Your task to perform on an android device: Go to Wikipedia Image 0: 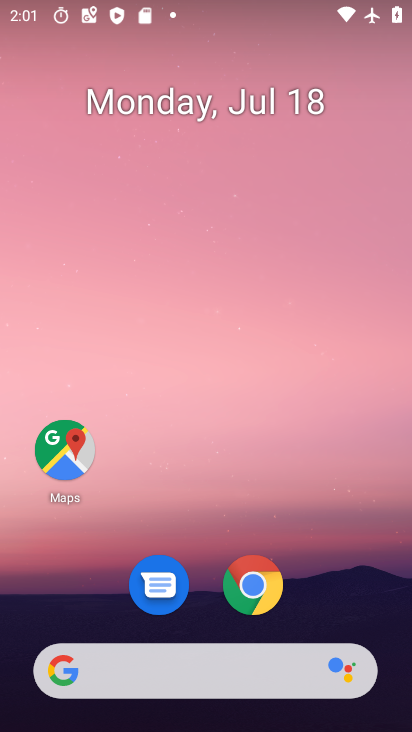
Step 0: click (248, 588)
Your task to perform on an android device: Go to Wikipedia Image 1: 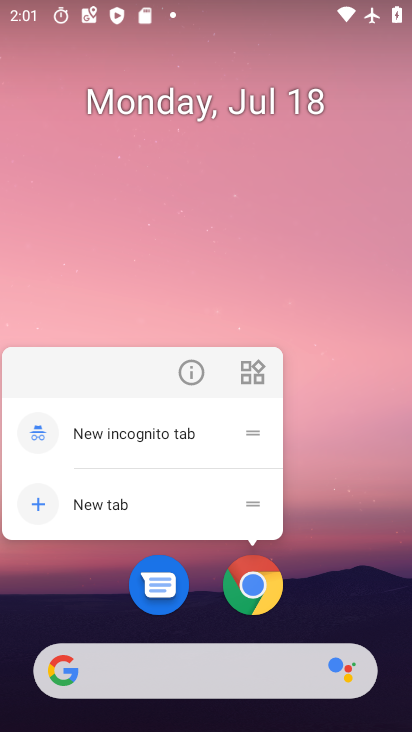
Step 1: click (263, 580)
Your task to perform on an android device: Go to Wikipedia Image 2: 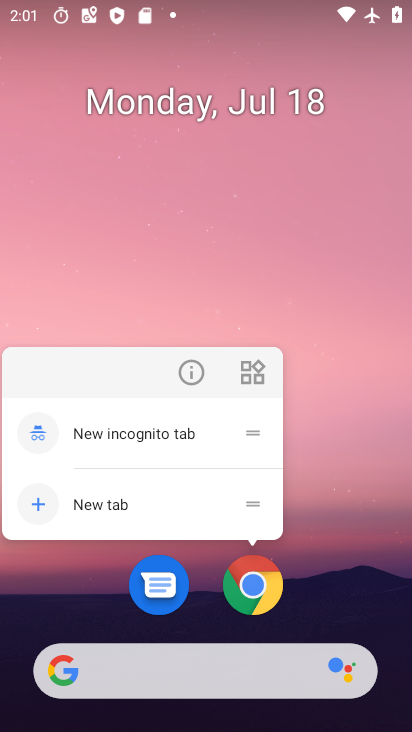
Step 2: click (255, 582)
Your task to perform on an android device: Go to Wikipedia Image 3: 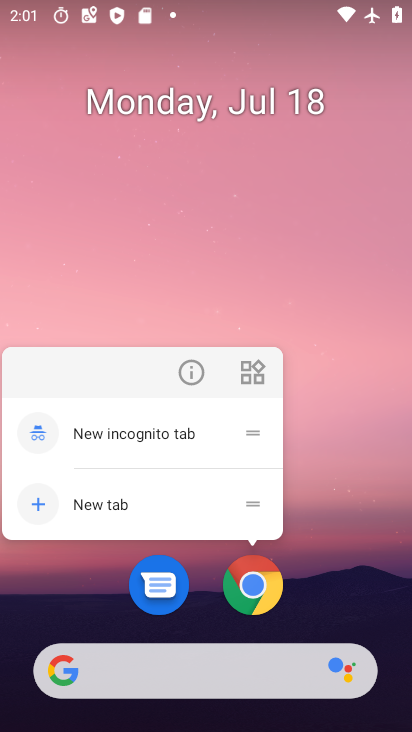
Step 3: click (255, 582)
Your task to perform on an android device: Go to Wikipedia Image 4: 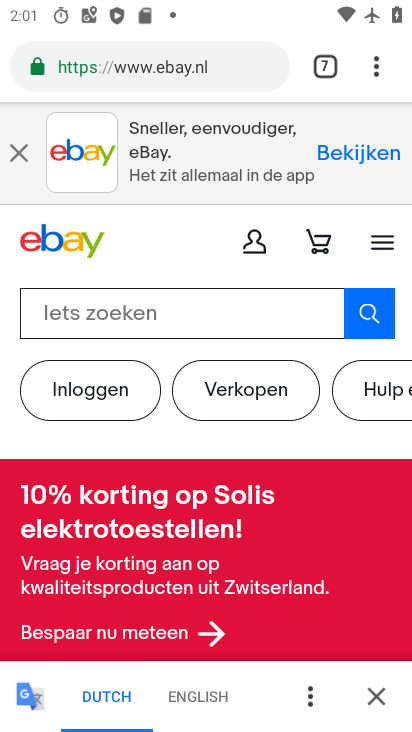
Step 4: drag from (372, 67) to (127, 132)
Your task to perform on an android device: Go to Wikipedia Image 5: 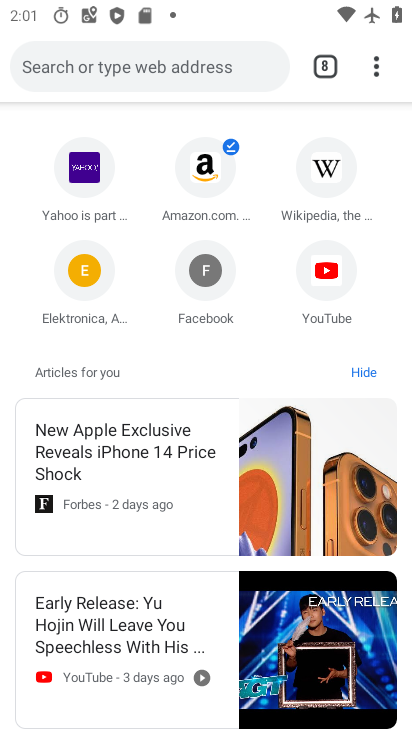
Step 5: click (325, 163)
Your task to perform on an android device: Go to Wikipedia Image 6: 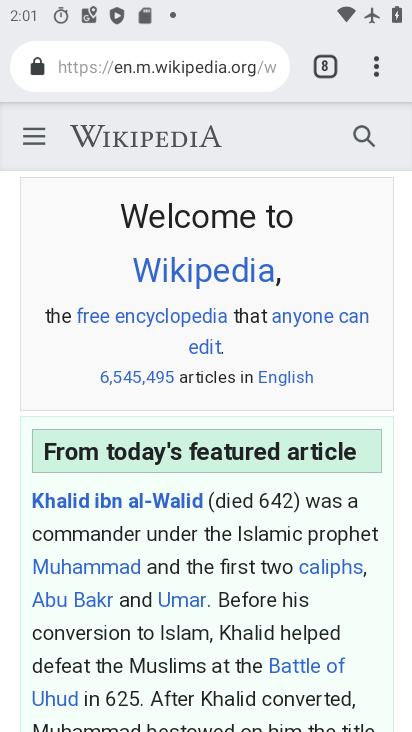
Step 6: task complete